Your task to perform on an android device: turn off location history Image 0: 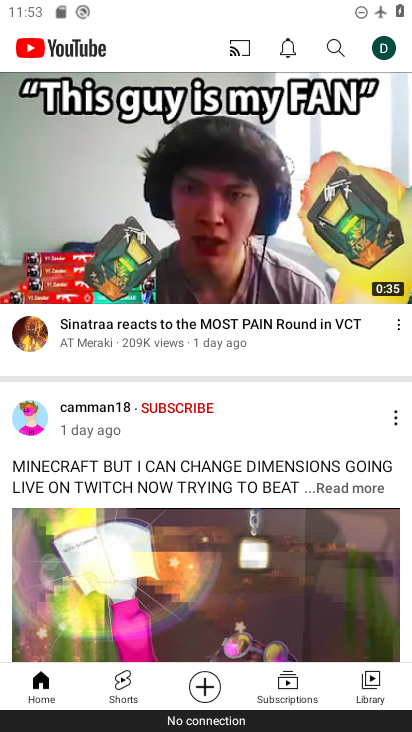
Step 0: press home button
Your task to perform on an android device: turn off location history Image 1: 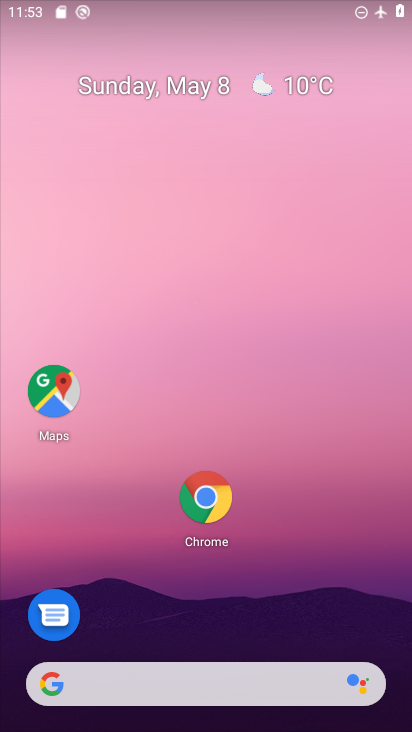
Step 1: drag from (350, 554) to (360, 21)
Your task to perform on an android device: turn off location history Image 2: 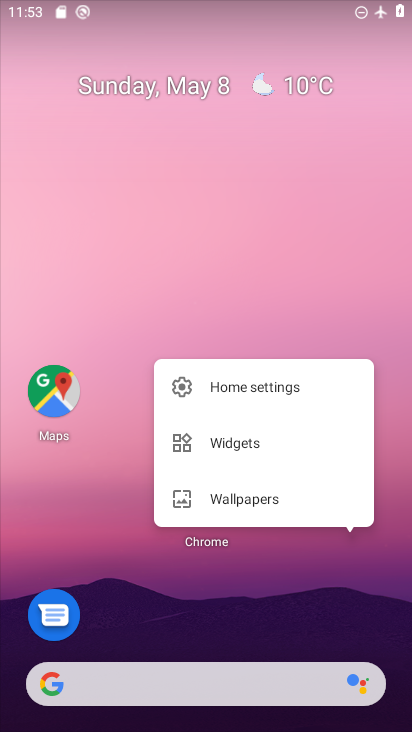
Step 2: click (352, 599)
Your task to perform on an android device: turn off location history Image 3: 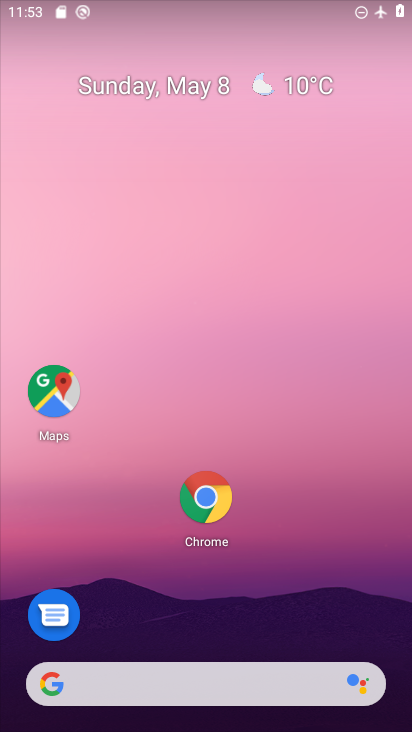
Step 3: drag from (358, 601) to (213, 149)
Your task to perform on an android device: turn off location history Image 4: 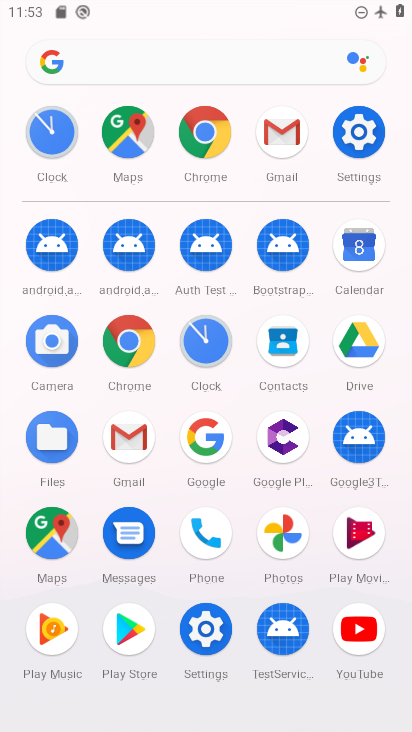
Step 4: click (361, 118)
Your task to perform on an android device: turn off location history Image 5: 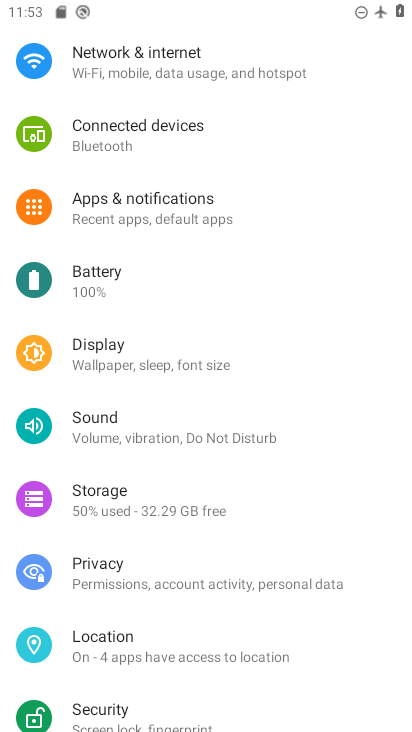
Step 5: drag from (159, 612) to (194, 253)
Your task to perform on an android device: turn off location history Image 6: 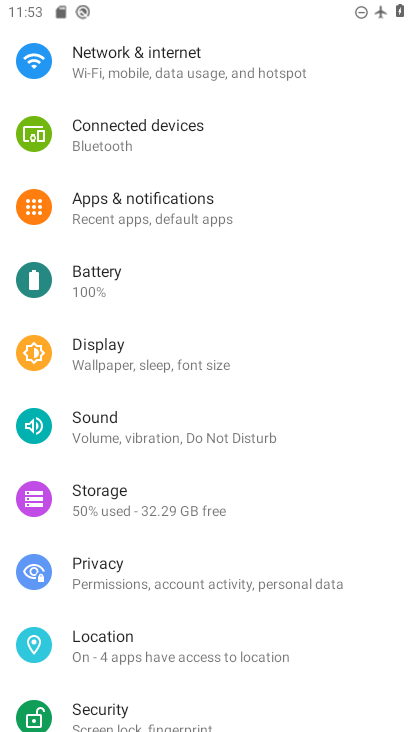
Step 6: click (167, 656)
Your task to perform on an android device: turn off location history Image 7: 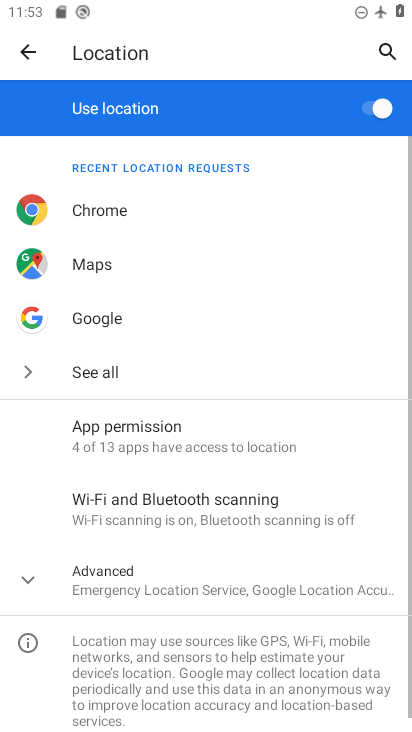
Step 7: click (158, 586)
Your task to perform on an android device: turn off location history Image 8: 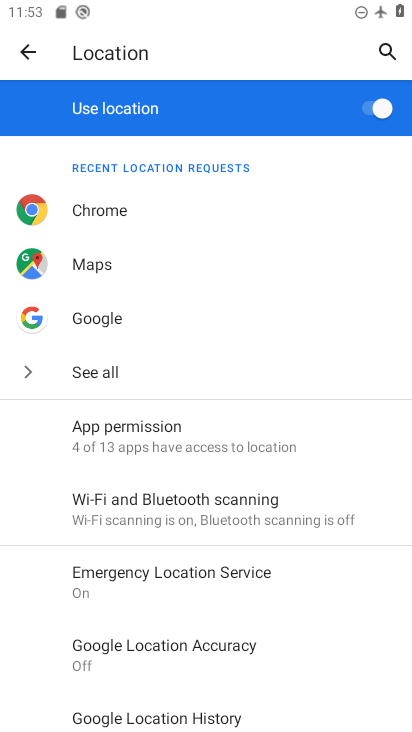
Step 8: click (218, 708)
Your task to perform on an android device: turn off location history Image 9: 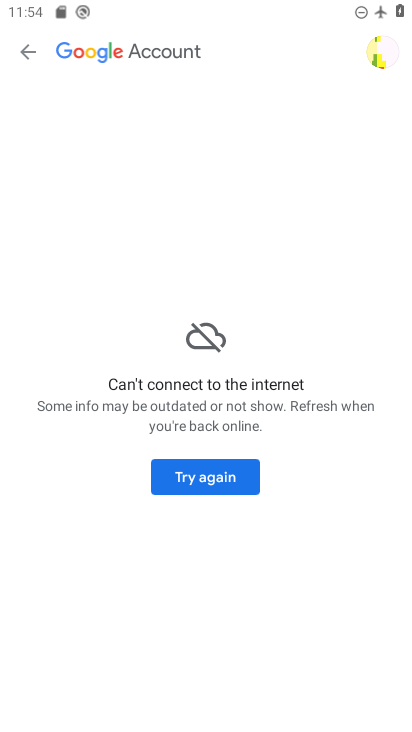
Step 9: click (18, 45)
Your task to perform on an android device: turn off location history Image 10: 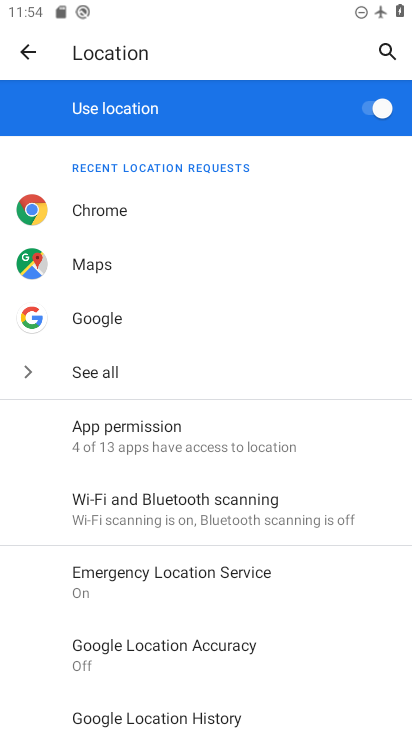
Step 10: drag from (291, 674) to (314, 289)
Your task to perform on an android device: turn off location history Image 11: 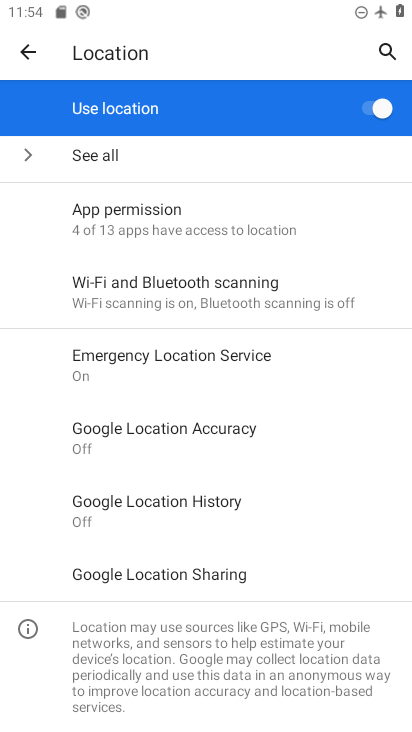
Step 11: click (199, 499)
Your task to perform on an android device: turn off location history Image 12: 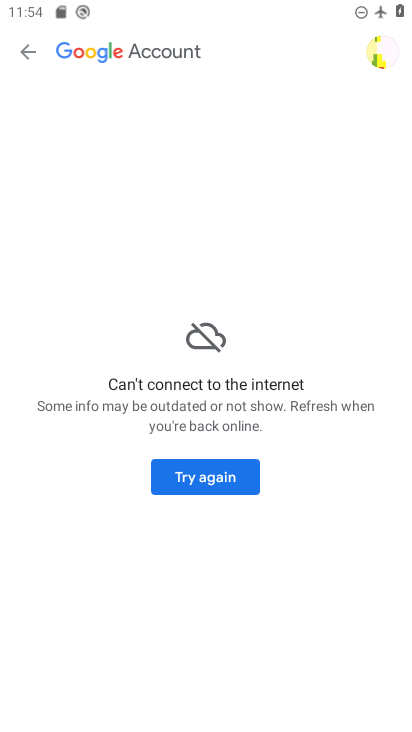
Step 12: task complete